Your task to perform on an android device: toggle priority inbox in the gmail app Image 0: 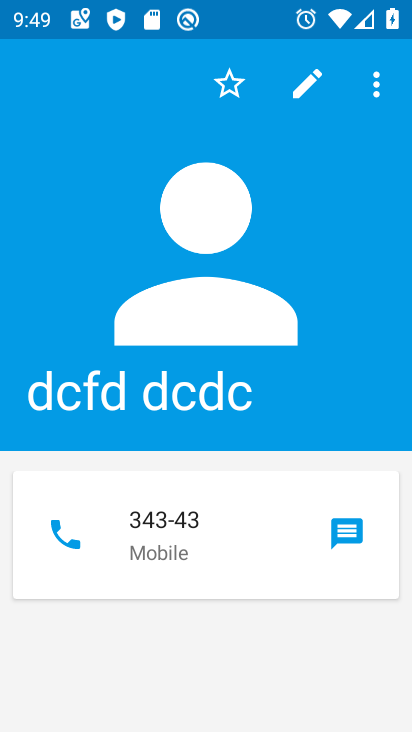
Step 0: press home button
Your task to perform on an android device: toggle priority inbox in the gmail app Image 1: 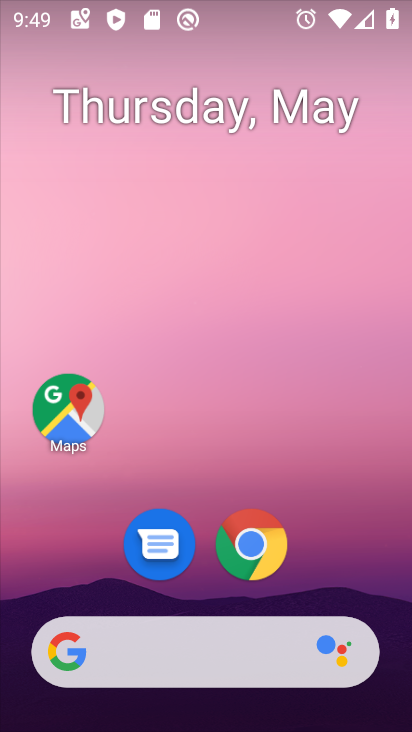
Step 1: drag from (216, 592) to (234, 190)
Your task to perform on an android device: toggle priority inbox in the gmail app Image 2: 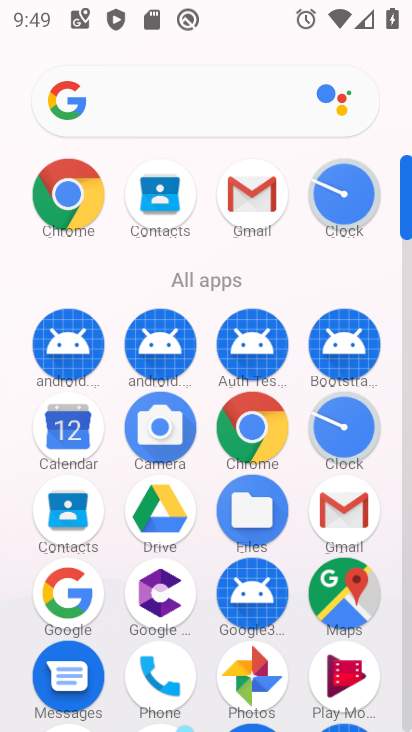
Step 2: click (341, 504)
Your task to perform on an android device: toggle priority inbox in the gmail app Image 3: 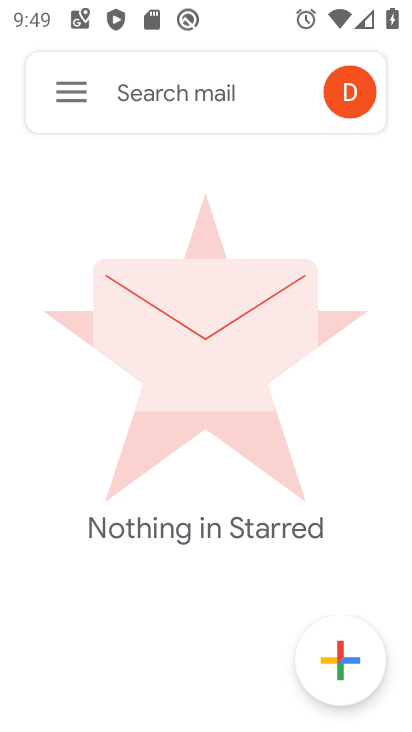
Step 3: click (76, 89)
Your task to perform on an android device: toggle priority inbox in the gmail app Image 4: 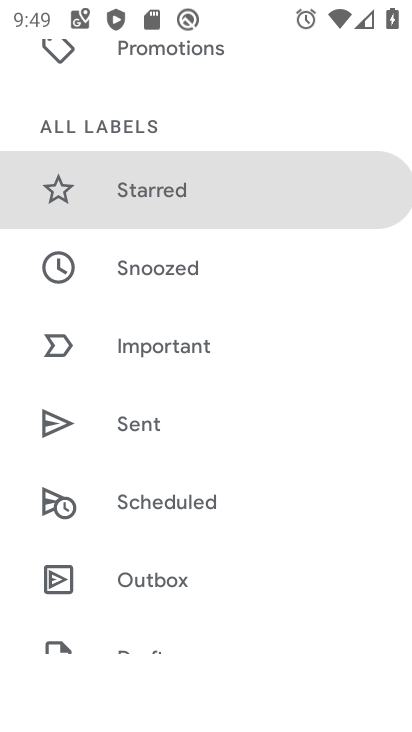
Step 4: drag from (174, 579) to (218, 209)
Your task to perform on an android device: toggle priority inbox in the gmail app Image 5: 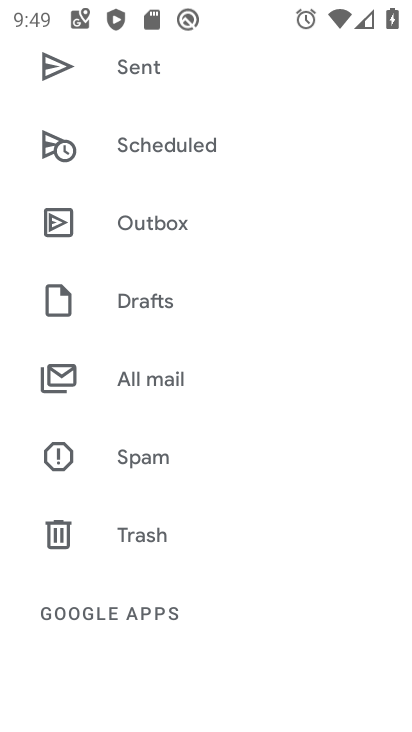
Step 5: drag from (168, 593) to (222, 282)
Your task to perform on an android device: toggle priority inbox in the gmail app Image 6: 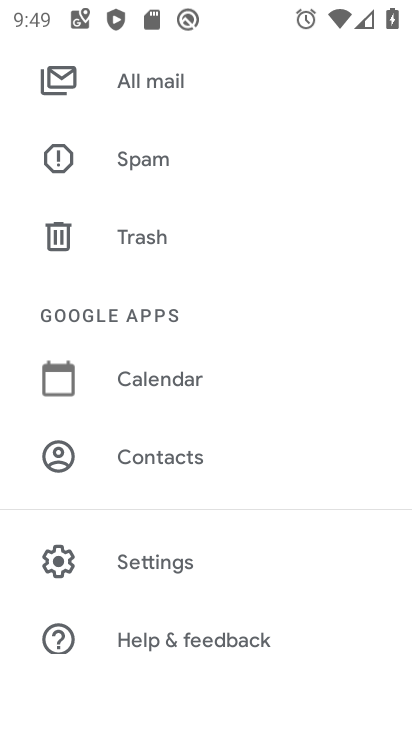
Step 6: click (171, 569)
Your task to perform on an android device: toggle priority inbox in the gmail app Image 7: 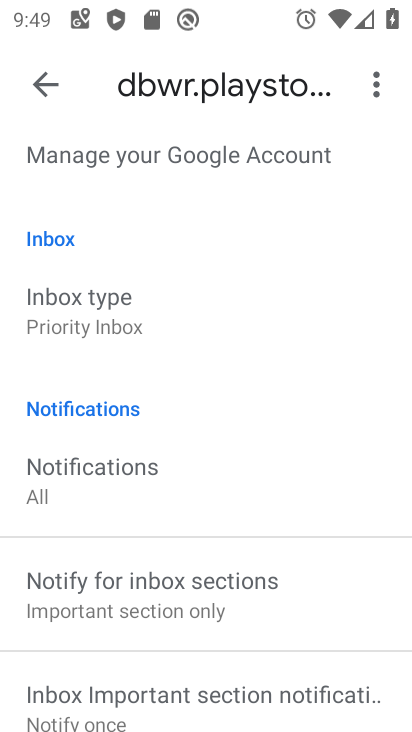
Step 7: click (122, 307)
Your task to perform on an android device: toggle priority inbox in the gmail app Image 8: 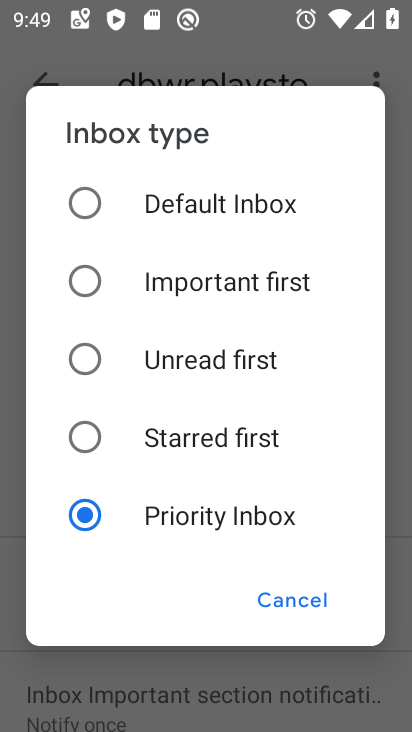
Step 8: task complete